Your task to perform on an android device: open app "McDonald's" (install if not already installed) Image 0: 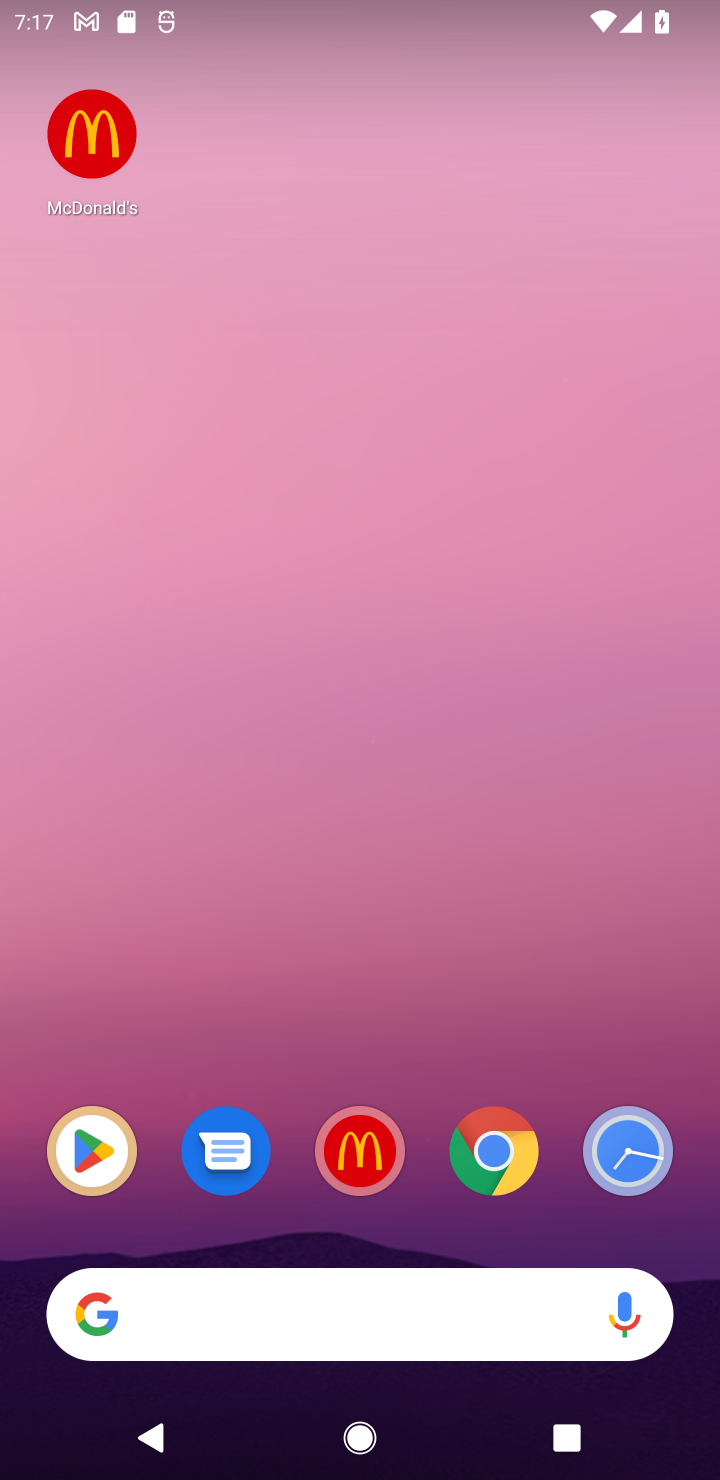
Step 0: click (89, 1137)
Your task to perform on an android device: open app "McDonald's" (install if not already installed) Image 1: 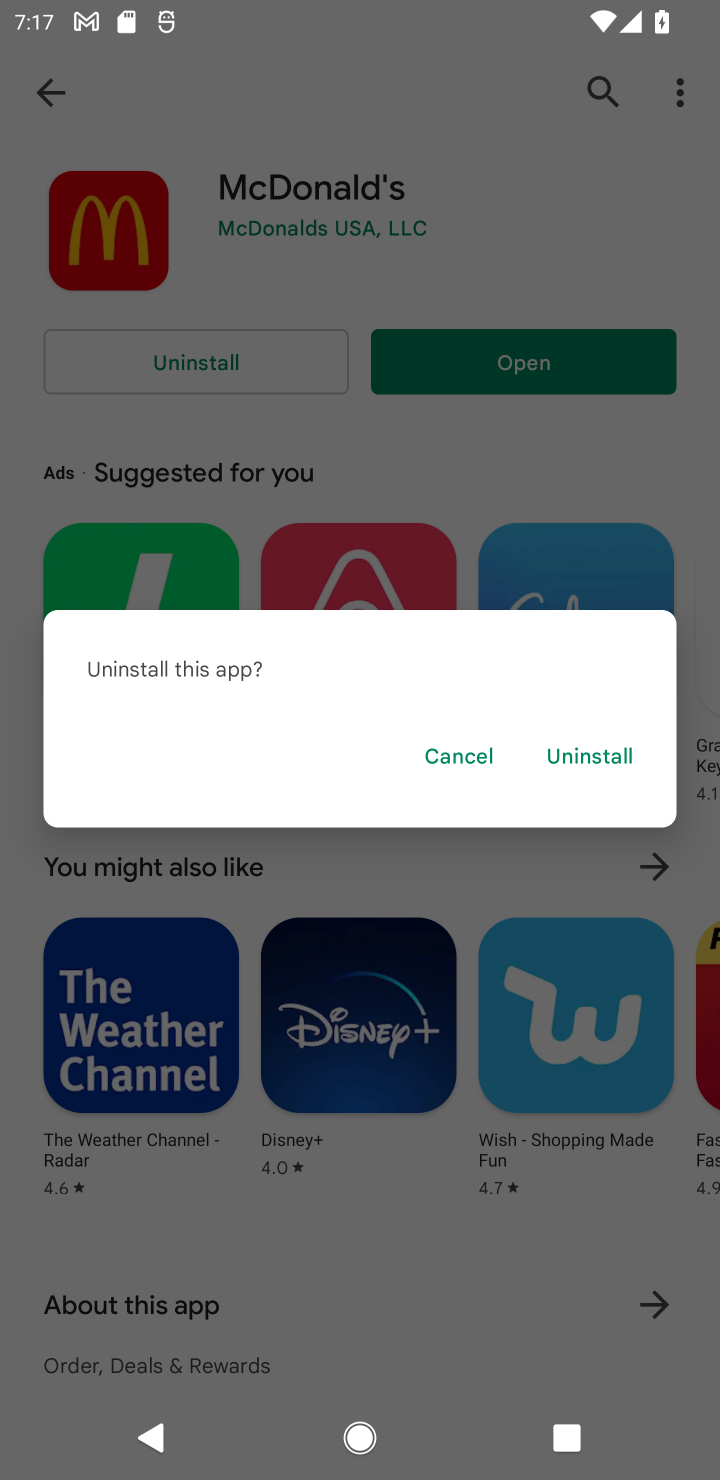
Step 1: click (457, 750)
Your task to perform on an android device: open app "McDonald's" (install if not already installed) Image 2: 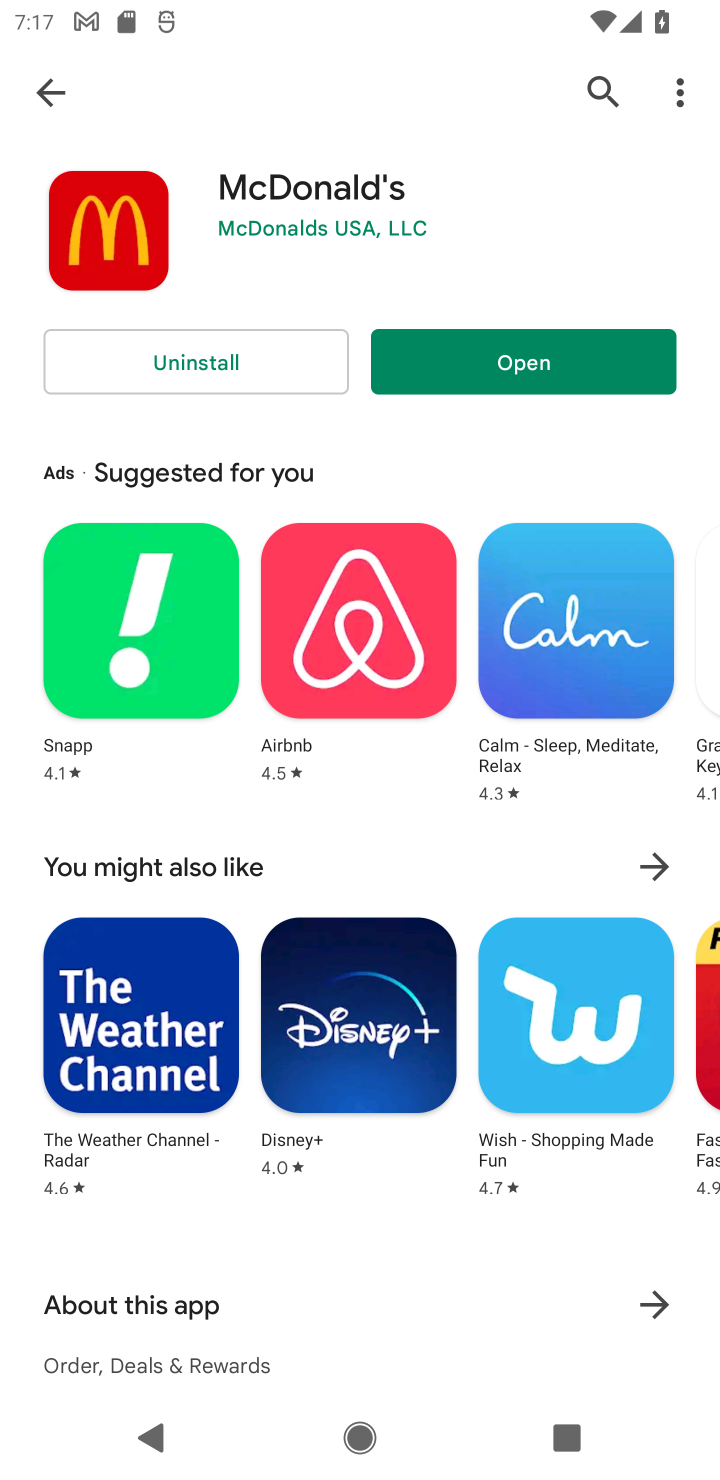
Step 2: click (45, 73)
Your task to perform on an android device: open app "McDonald's" (install if not already installed) Image 3: 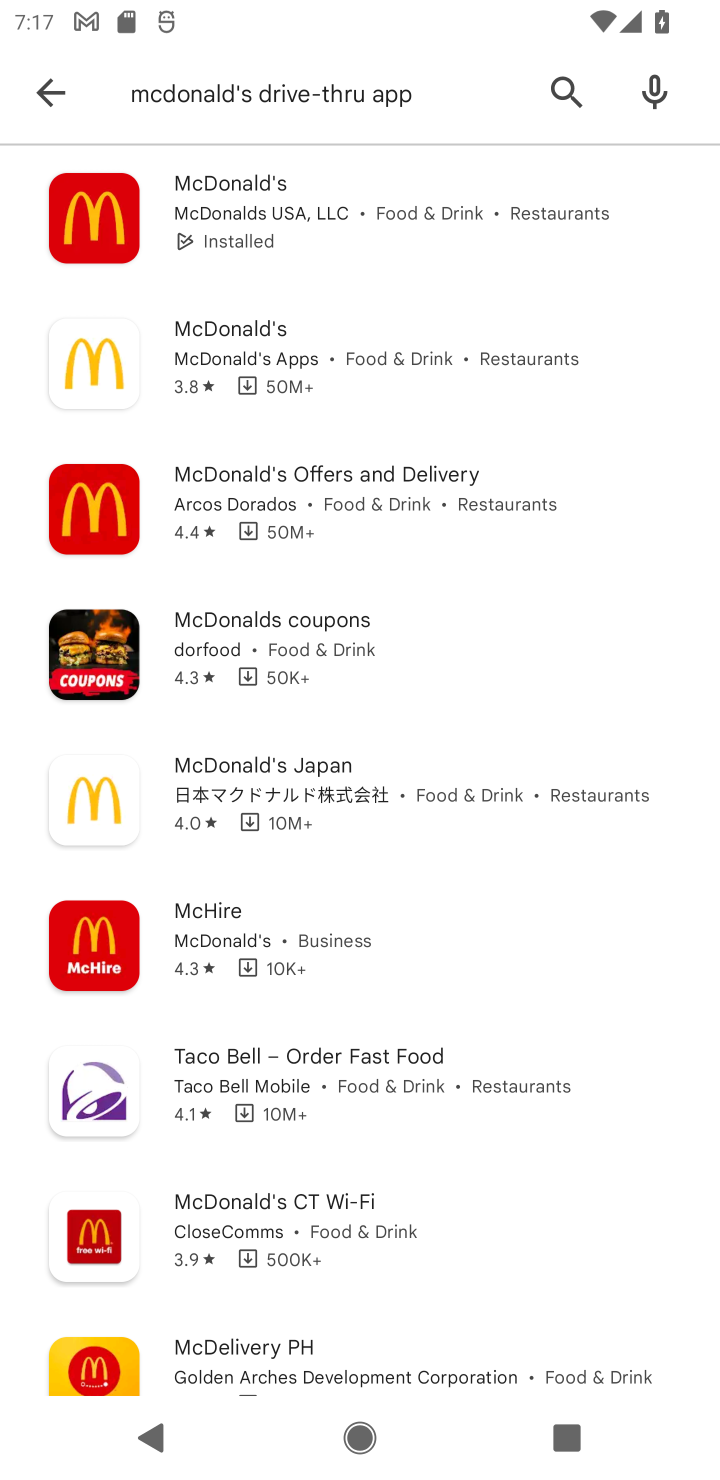
Step 3: click (213, 214)
Your task to perform on an android device: open app "McDonald's" (install if not already installed) Image 4: 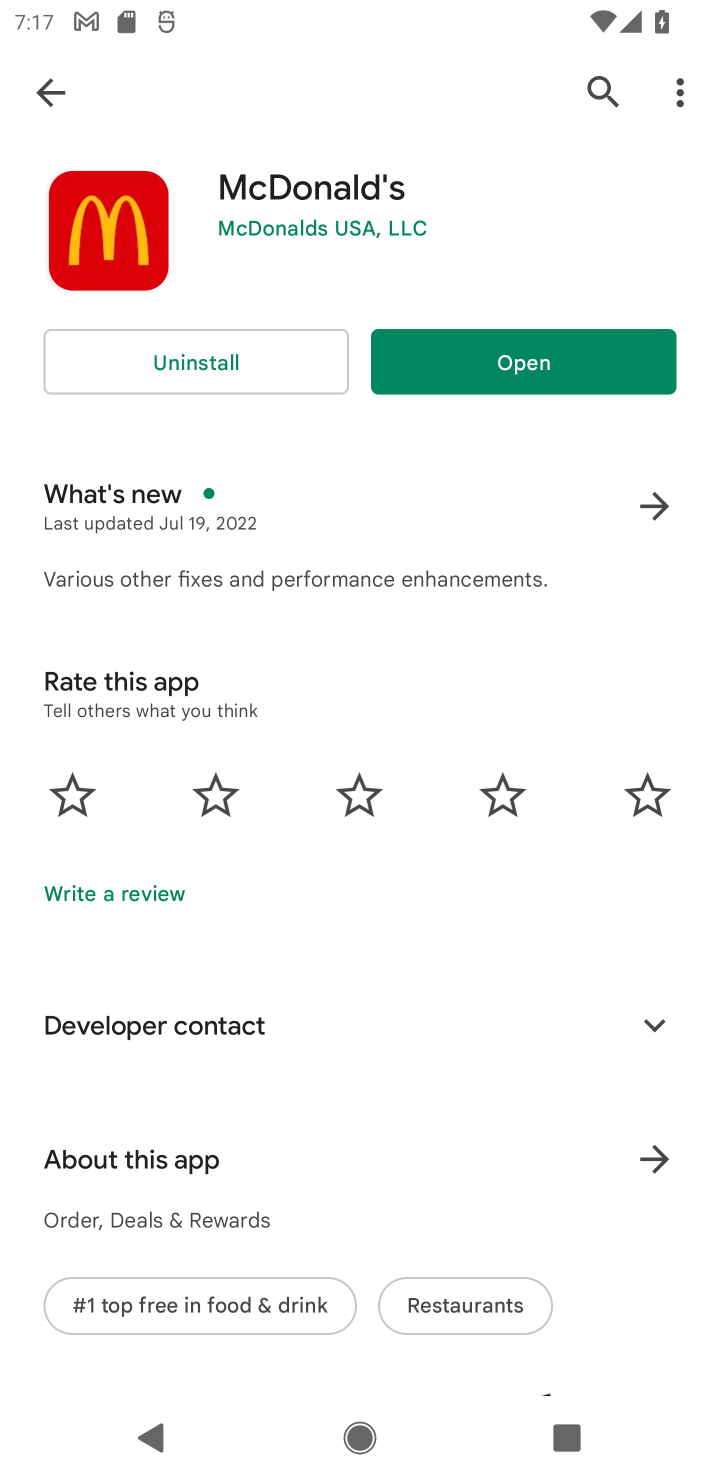
Step 4: click (610, 375)
Your task to perform on an android device: open app "McDonald's" (install if not already installed) Image 5: 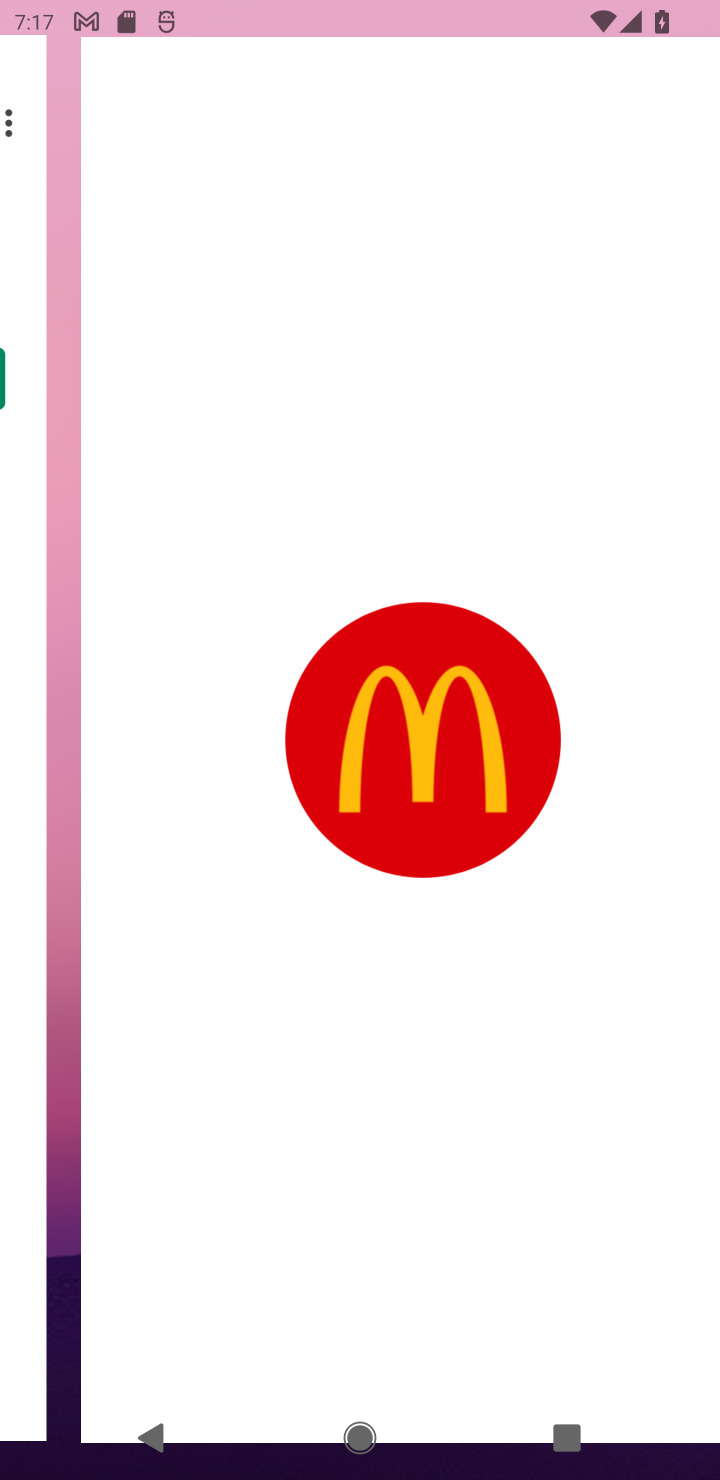
Step 5: task complete